Your task to perform on an android device: Go to CNN.com Image 0: 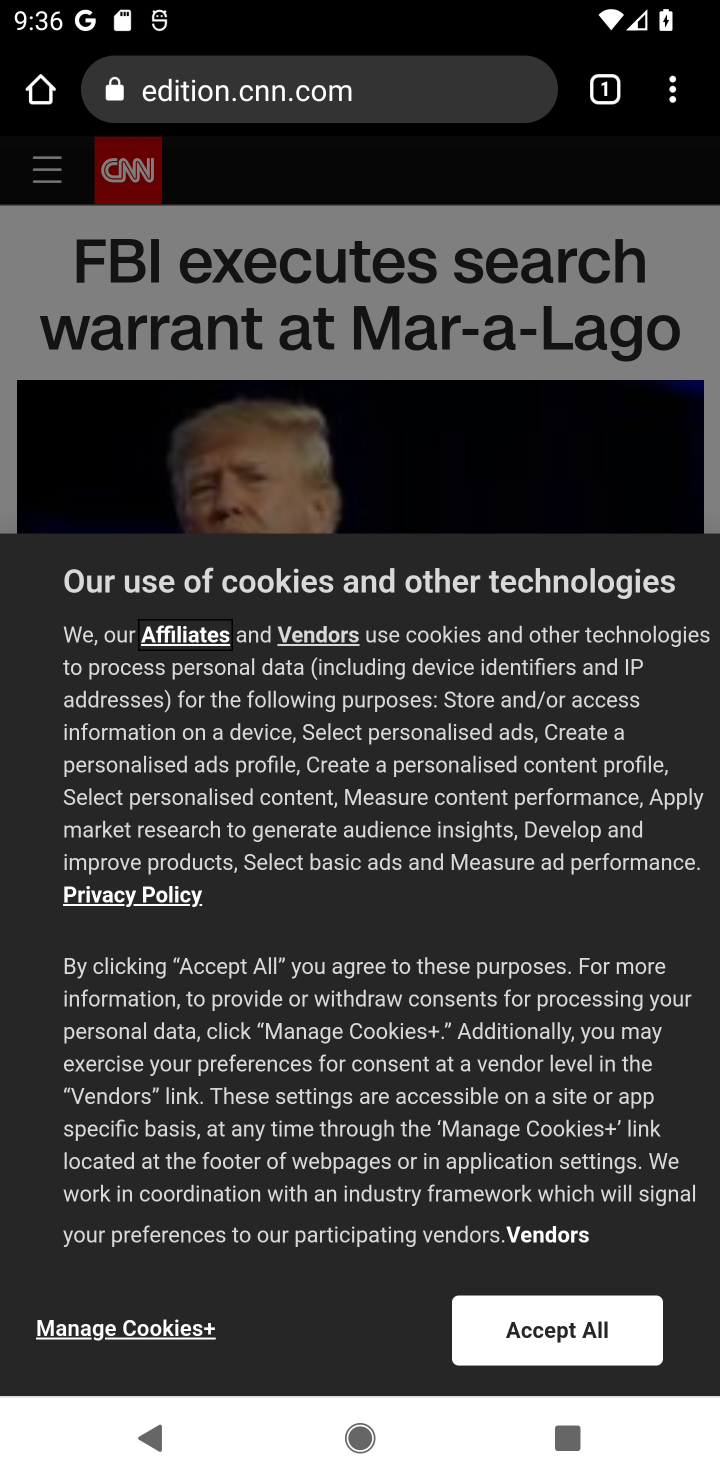
Step 0: task complete